Your task to perform on an android device: toggle wifi Image 0: 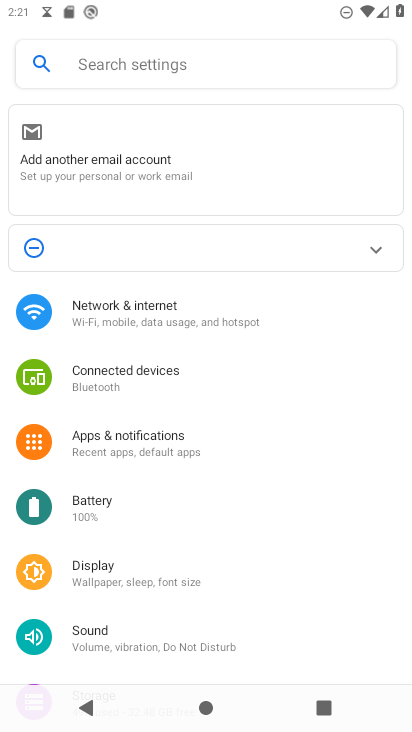
Step 0: click (195, 309)
Your task to perform on an android device: toggle wifi Image 1: 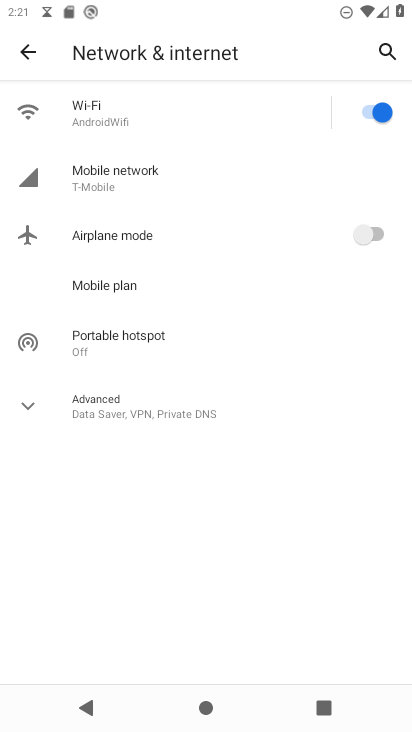
Step 1: click (377, 117)
Your task to perform on an android device: toggle wifi Image 2: 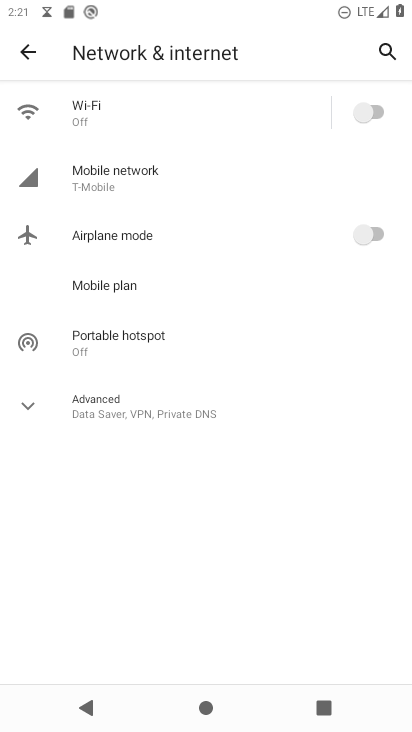
Step 2: task complete